Your task to perform on an android device: Go to Google Image 0: 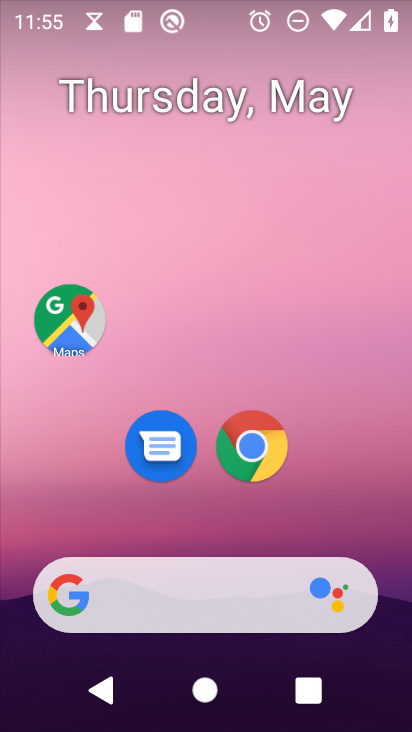
Step 0: drag from (258, 638) to (282, 384)
Your task to perform on an android device: Go to Google Image 1: 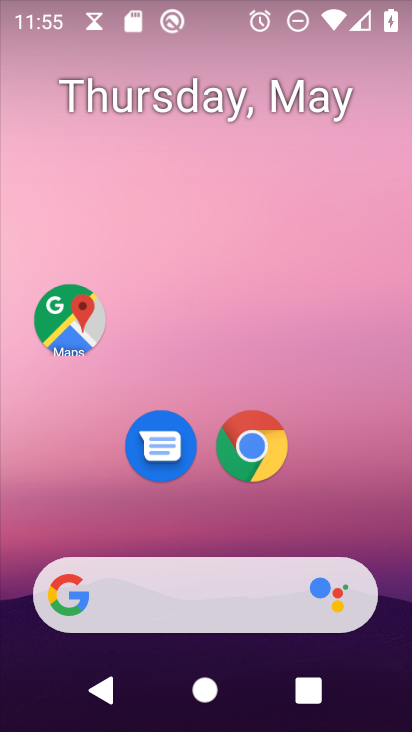
Step 1: drag from (261, 637) to (306, 233)
Your task to perform on an android device: Go to Google Image 2: 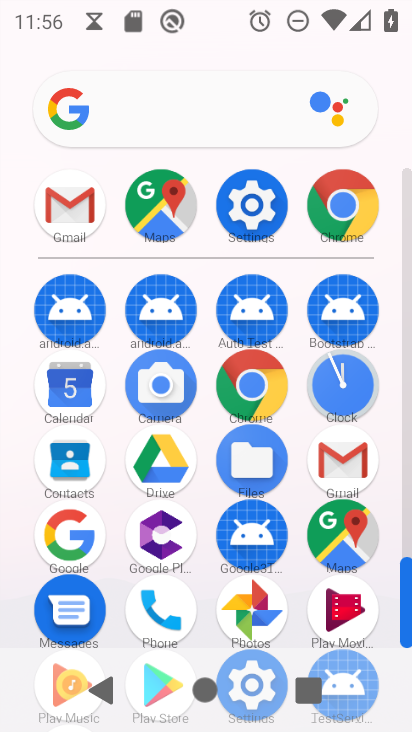
Step 2: click (84, 111)
Your task to perform on an android device: Go to Google Image 3: 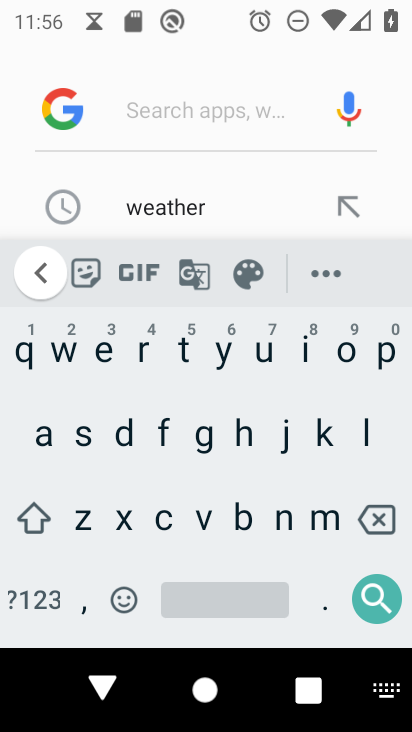
Step 3: click (58, 97)
Your task to perform on an android device: Go to Google Image 4: 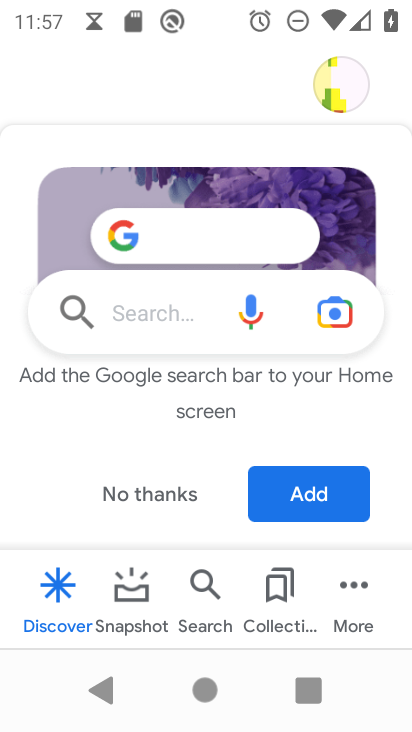
Step 4: task complete